Your task to perform on an android device: empty trash in google photos Image 0: 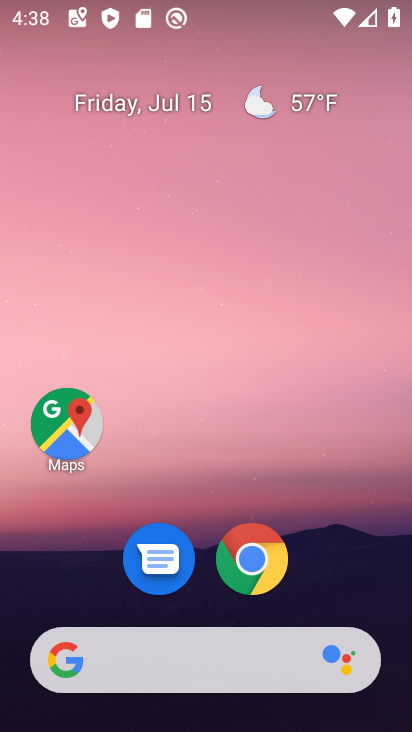
Step 0: drag from (98, 539) to (159, 54)
Your task to perform on an android device: empty trash in google photos Image 1: 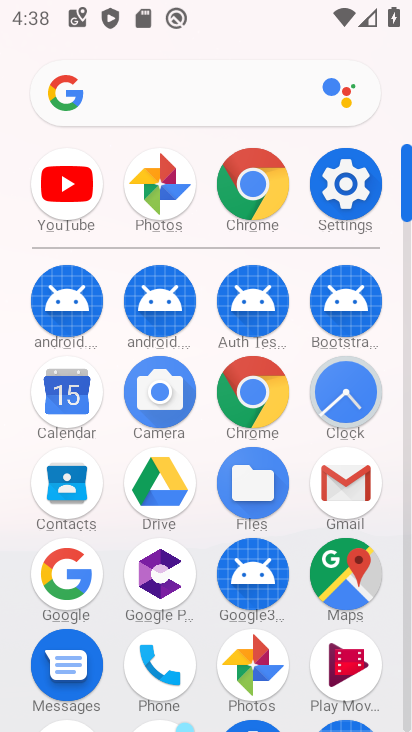
Step 1: click (247, 661)
Your task to perform on an android device: empty trash in google photos Image 2: 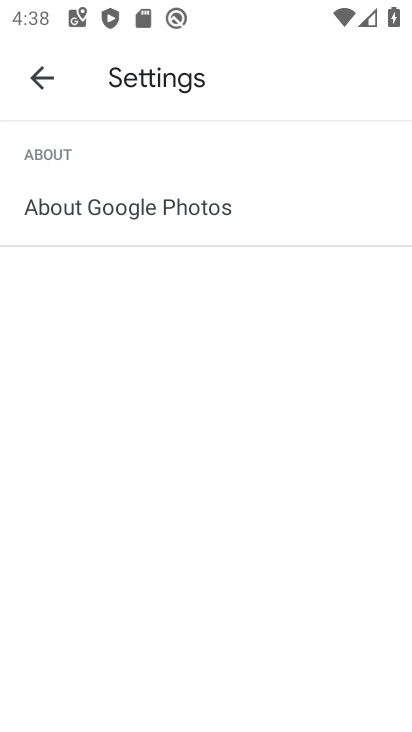
Step 2: click (46, 68)
Your task to perform on an android device: empty trash in google photos Image 3: 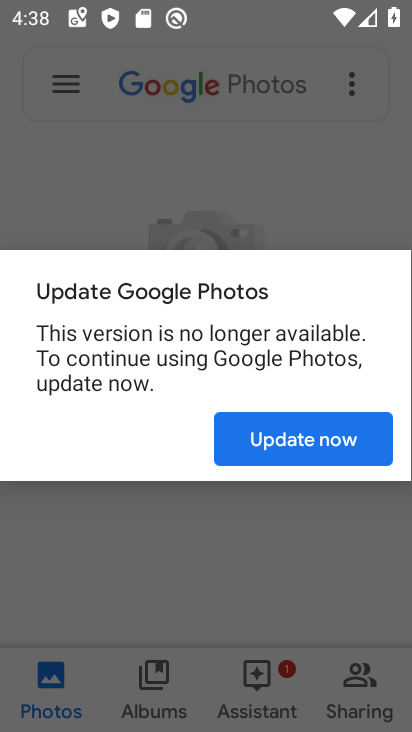
Step 3: click (272, 443)
Your task to perform on an android device: empty trash in google photos Image 4: 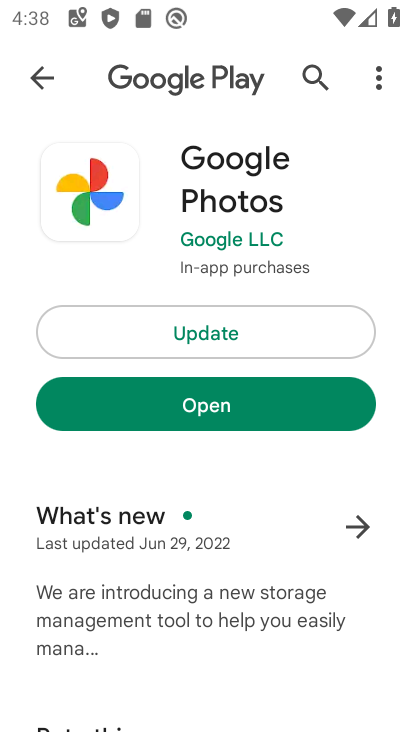
Step 4: click (220, 386)
Your task to perform on an android device: empty trash in google photos Image 5: 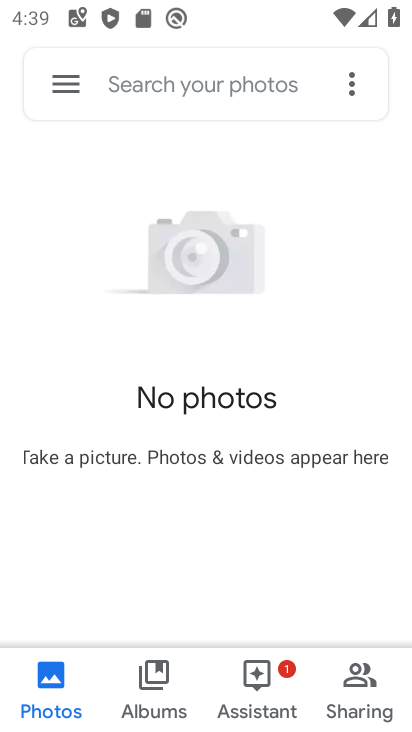
Step 5: click (75, 90)
Your task to perform on an android device: empty trash in google photos Image 6: 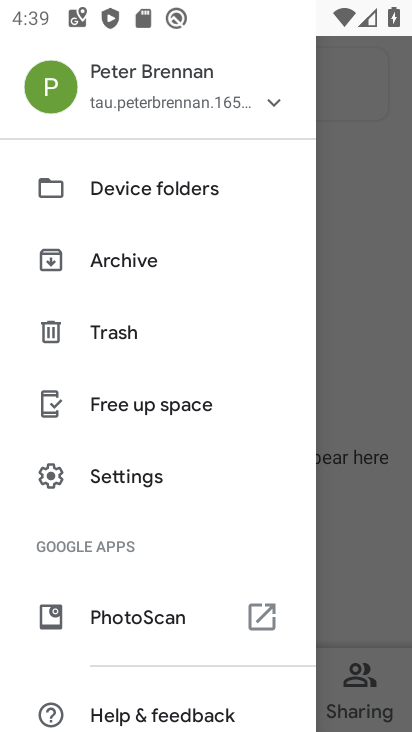
Step 6: click (124, 333)
Your task to perform on an android device: empty trash in google photos Image 7: 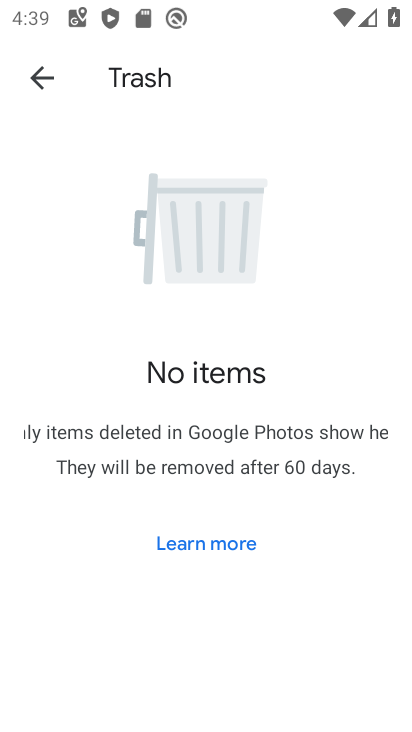
Step 7: task complete